Your task to perform on an android device: stop showing notifications on the lock screen Image 0: 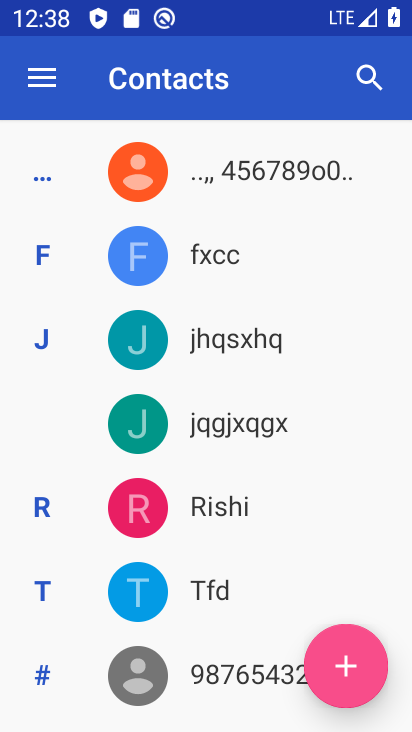
Step 0: press back button
Your task to perform on an android device: stop showing notifications on the lock screen Image 1: 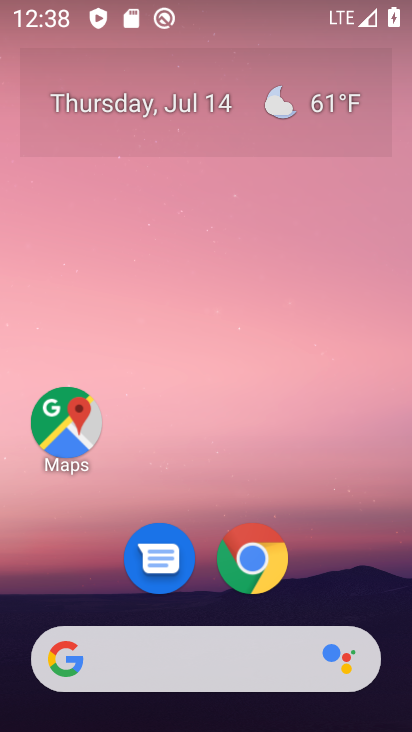
Step 1: drag from (98, 544) to (246, 31)
Your task to perform on an android device: stop showing notifications on the lock screen Image 2: 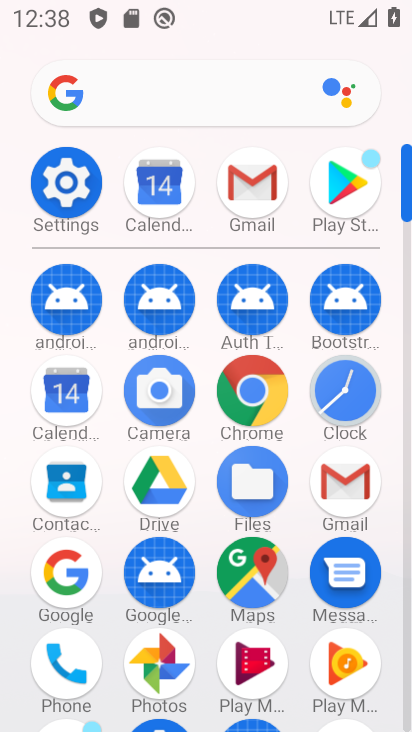
Step 2: click (74, 172)
Your task to perform on an android device: stop showing notifications on the lock screen Image 3: 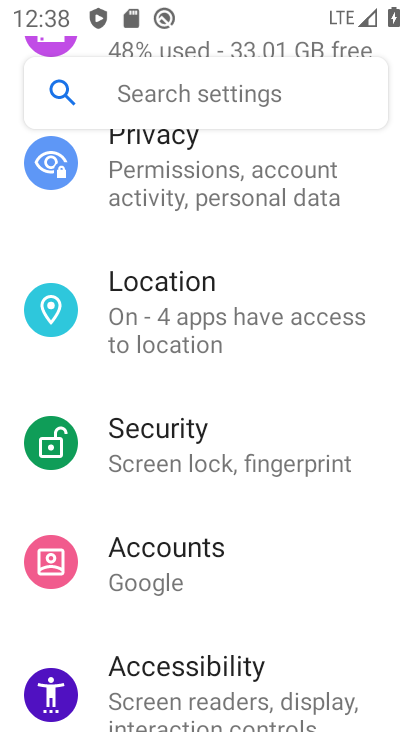
Step 3: drag from (207, 222) to (198, 724)
Your task to perform on an android device: stop showing notifications on the lock screen Image 4: 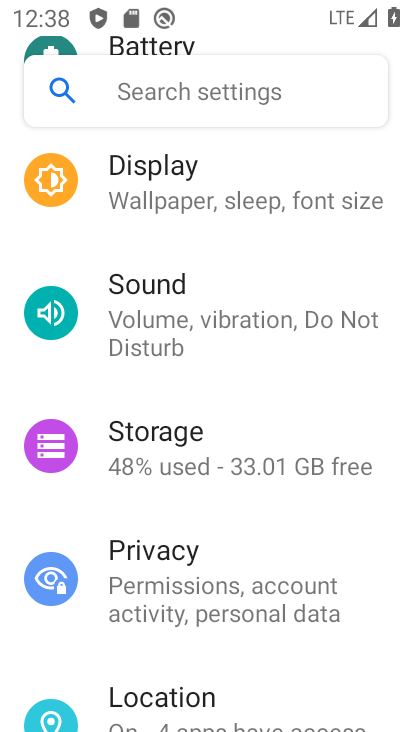
Step 4: drag from (197, 175) to (181, 710)
Your task to perform on an android device: stop showing notifications on the lock screen Image 5: 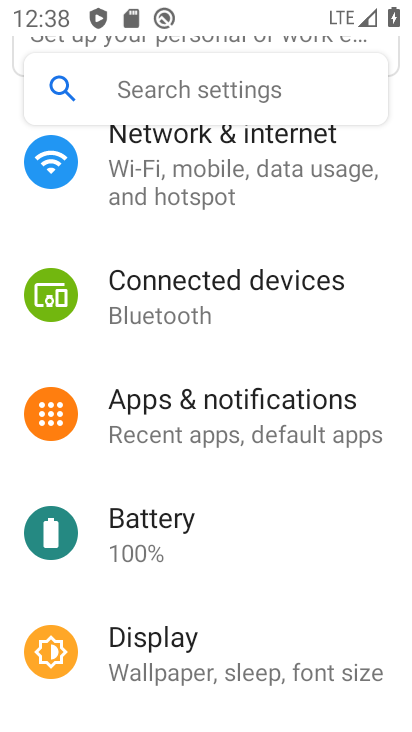
Step 5: click (229, 407)
Your task to perform on an android device: stop showing notifications on the lock screen Image 6: 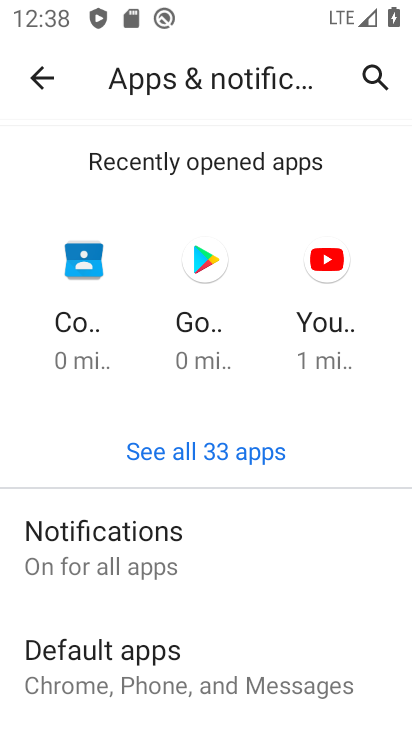
Step 6: drag from (160, 653) to (300, 202)
Your task to perform on an android device: stop showing notifications on the lock screen Image 7: 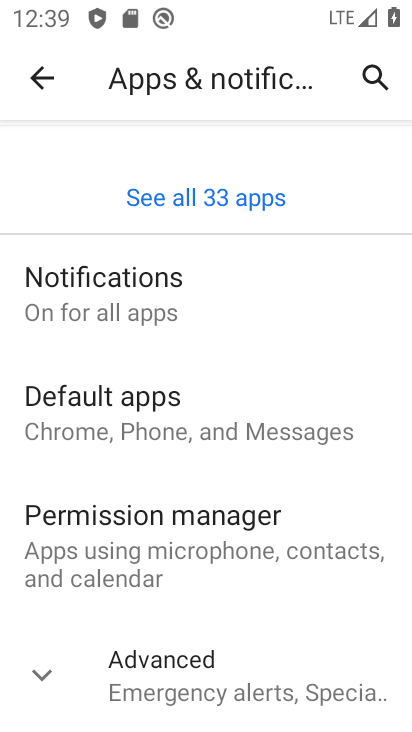
Step 7: click (209, 287)
Your task to perform on an android device: stop showing notifications on the lock screen Image 8: 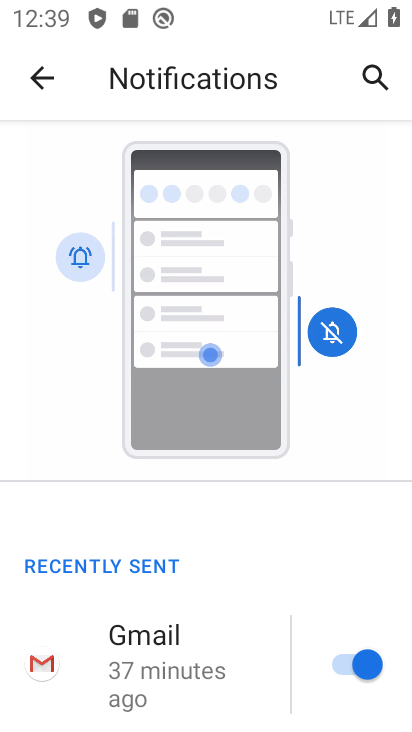
Step 8: drag from (174, 678) to (331, 19)
Your task to perform on an android device: stop showing notifications on the lock screen Image 9: 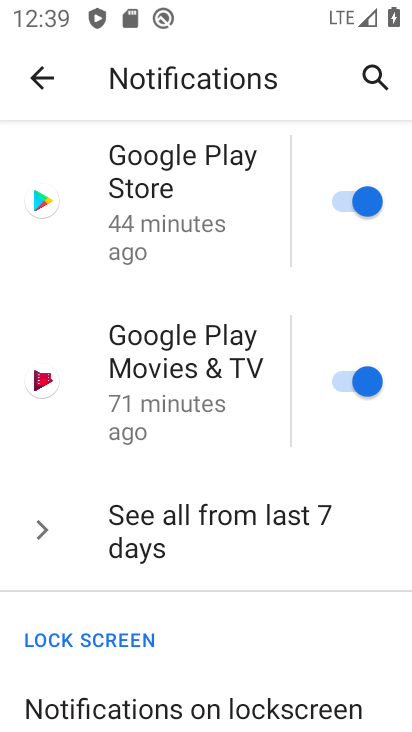
Step 9: drag from (218, 650) to (292, 238)
Your task to perform on an android device: stop showing notifications on the lock screen Image 10: 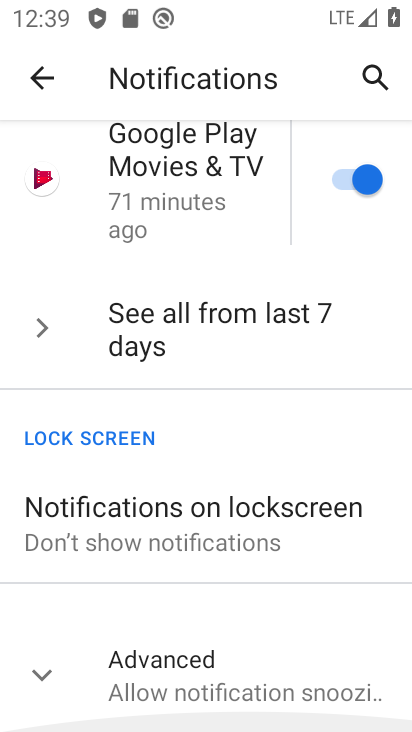
Step 10: click (203, 515)
Your task to perform on an android device: stop showing notifications on the lock screen Image 11: 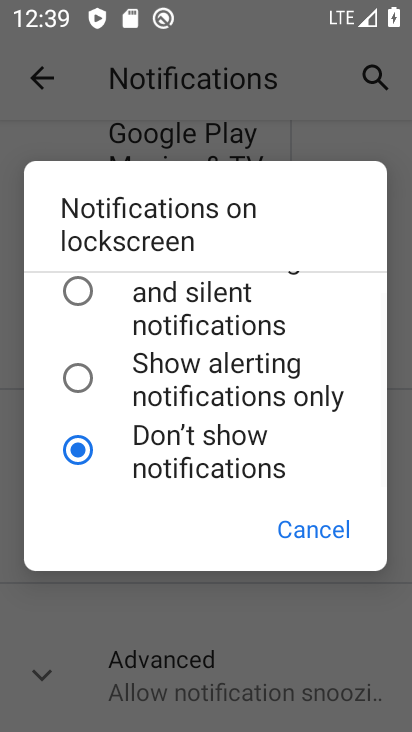
Step 11: task complete